Your task to perform on an android device: Go to CNN.com Image 0: 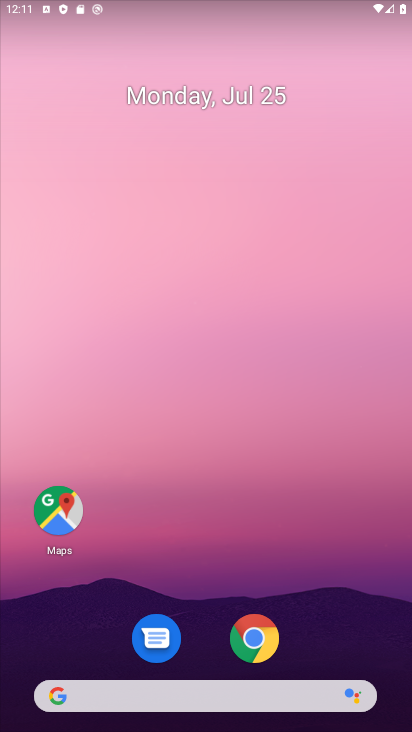
Step 0: click (198, 696)
Your task to perform on an android device: Go to CNN.com Image 1: 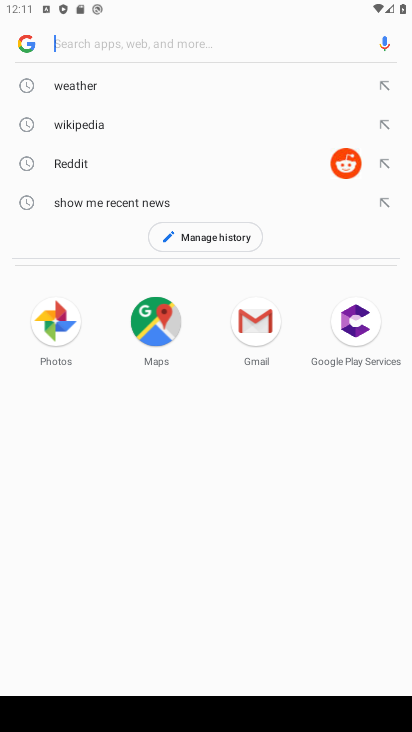
Step 1: type "cnn"
Your task to perform on an android device: Go to CNN.com Image 2: 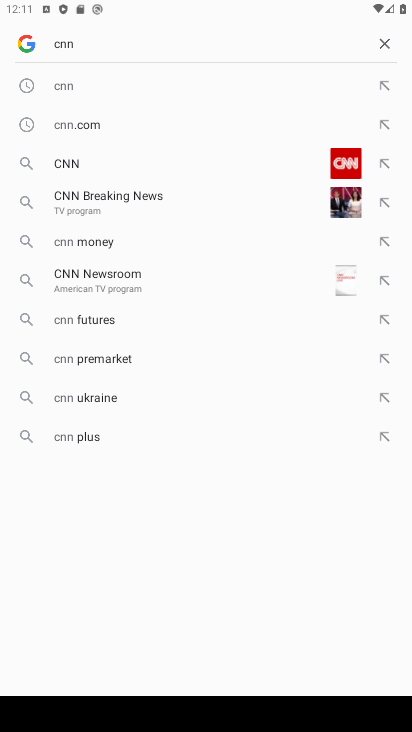
Step 2: click (109, 75)
Your task to perform on an android device: Go to CNN.com Image 3: 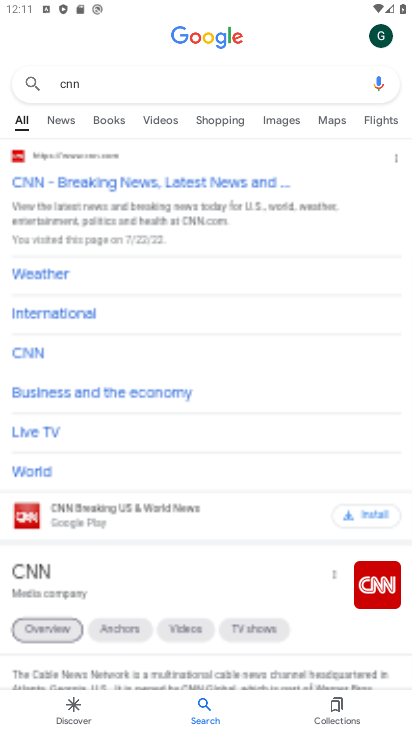
Step 3: click (62, 245)
Your task to perform on an android device: Go to CNN.com Image 4: 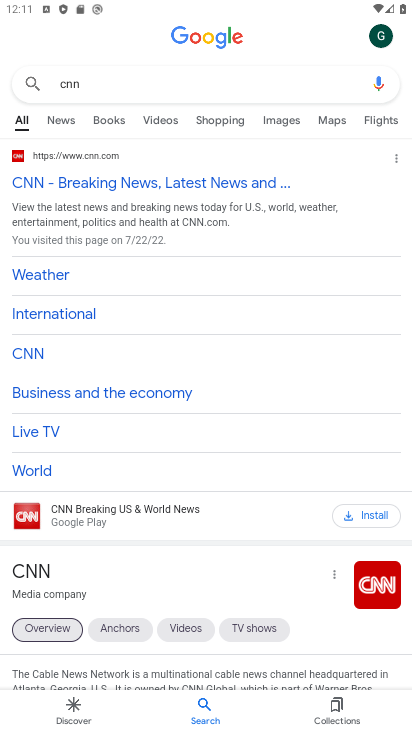
Step 4: click (141, 166)
Your task to perform on an android device: Go to CNN.com Image 5: 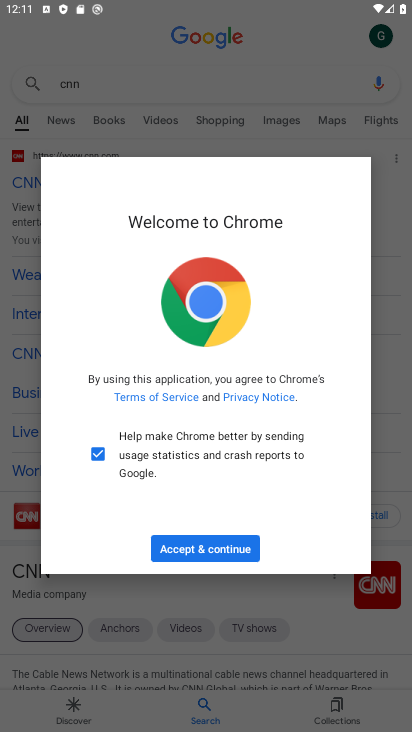
Step 5: click (199, 546)
Your task to perform on an android device: Go to CNN.com Image 6: 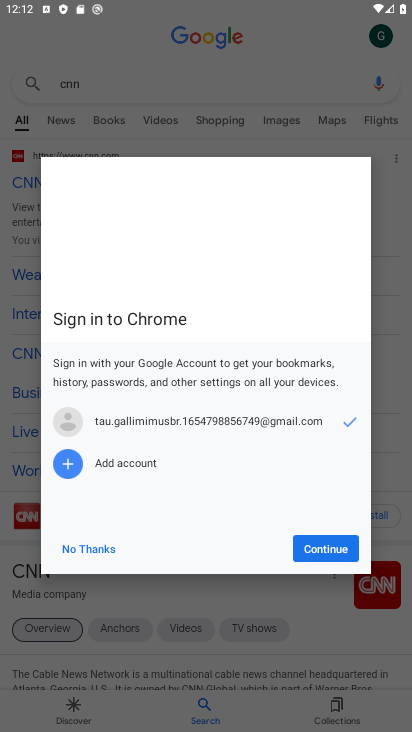
Step 6: click (345, 556)
Your task to perform on an android device: Go to CNN.com Image 7: 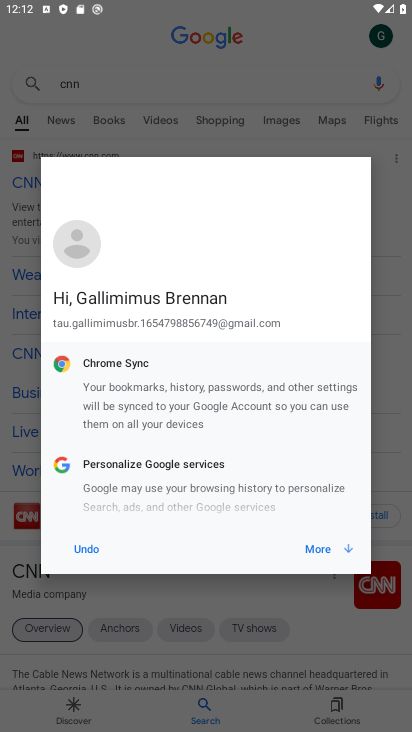
Step 7: click (345, 556)
Your task to perform on an android device: Go to CNN.com Image 8: 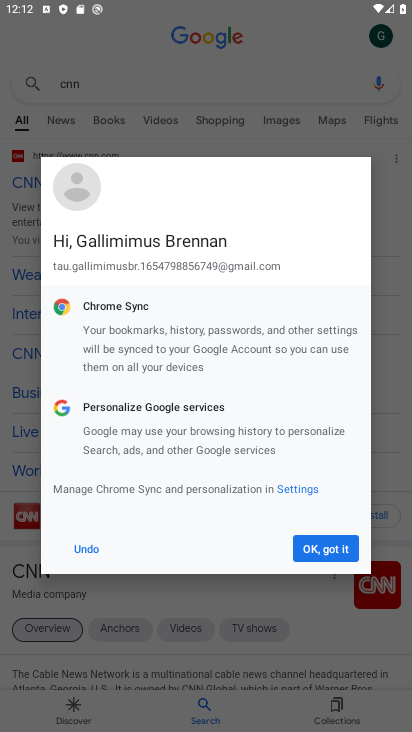
Step 8: click (345, 556)
Your task to perform on an android device: Go to CNN.com Image 9: 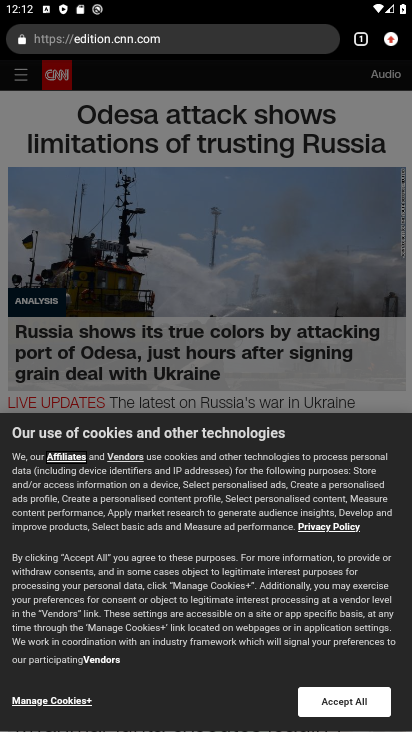
Step 9: task complete